Your task to perform on an android device: Go to location settings Image 0: 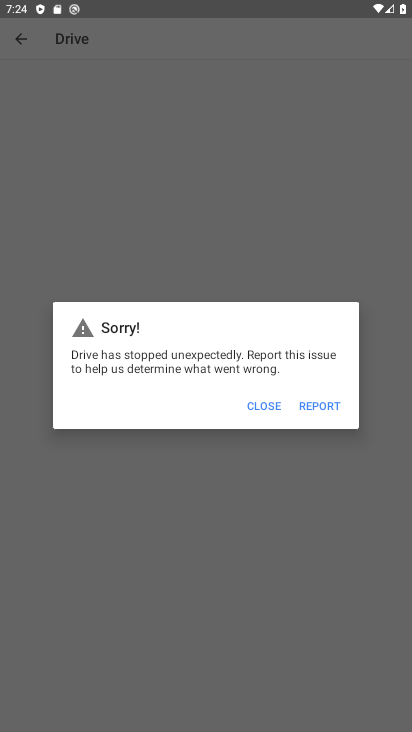
Step 0: press home button
Your task to perform on an android device: Go to location settings Image 1: 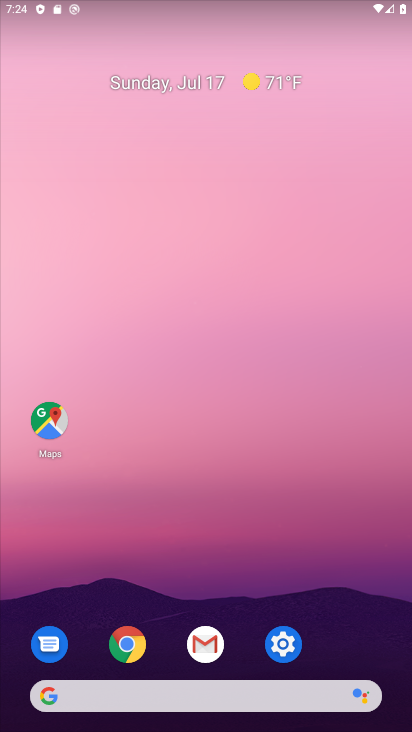
Step 1: click (271, 657)
Your task to perform on an android device: Go to location settings Image 2: 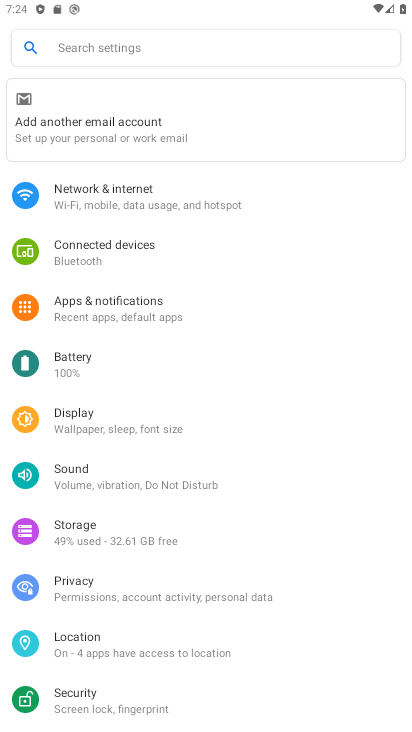
Step 2: click (128, 643)
Your task to perform on an android device: Go to location settings Image 3: 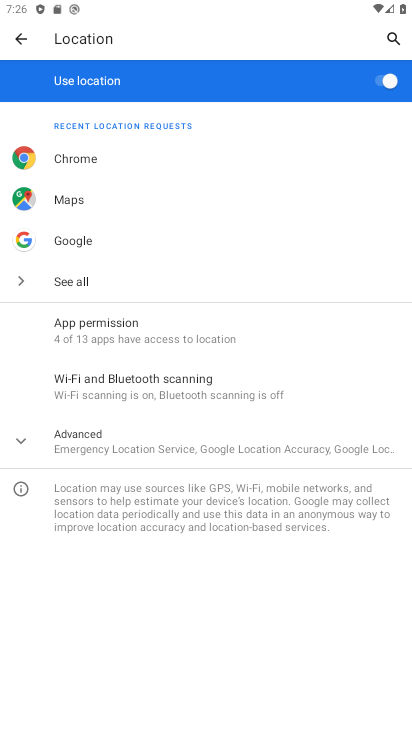
Step 3: task complete